Your task to perform on an android device: Check the weather Image 0: 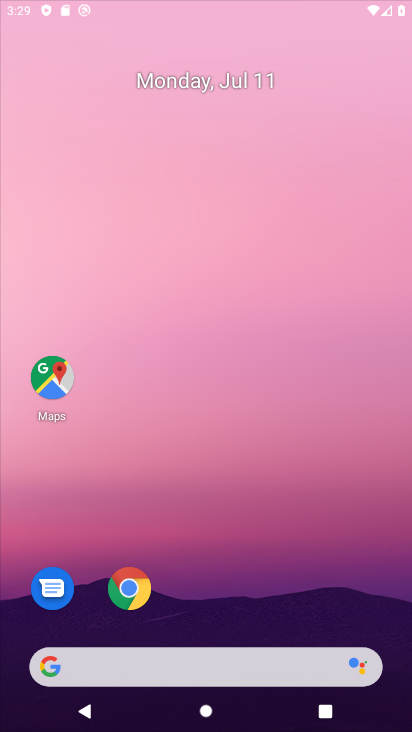
Step 0: press home button
Your task to perform on an android device: Check the weather Image 1: 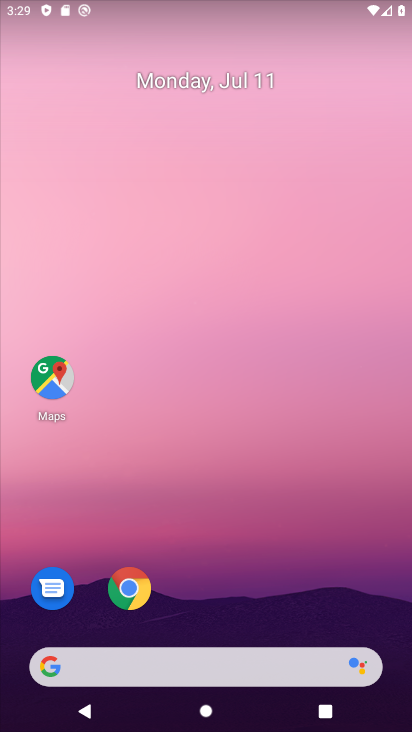
Step 1: click (48, 673)
Your task to perform on an android device: Check the weather Image 2: 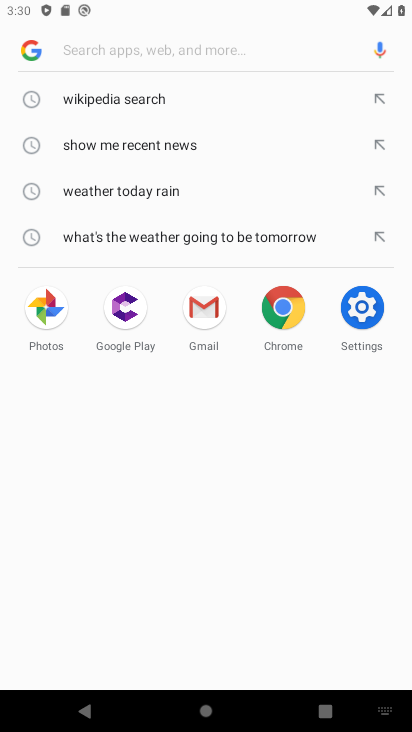
Step 2: type "weather"
Your task to perform on an android device: Check the weather Image 3: 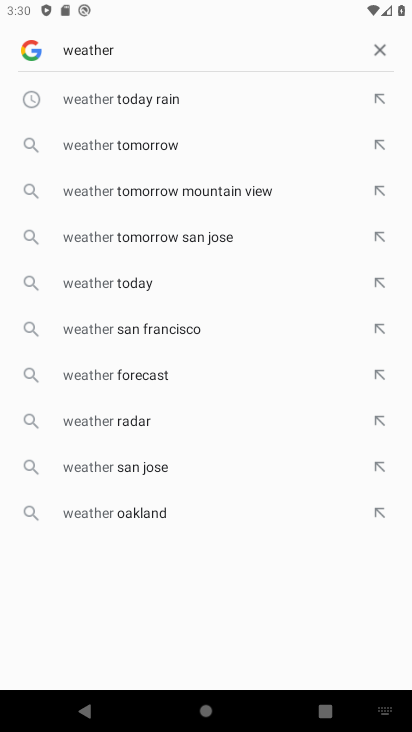
Step 3: click (114, 285)
Your task to perform on an android device: Check the weather Image 4: 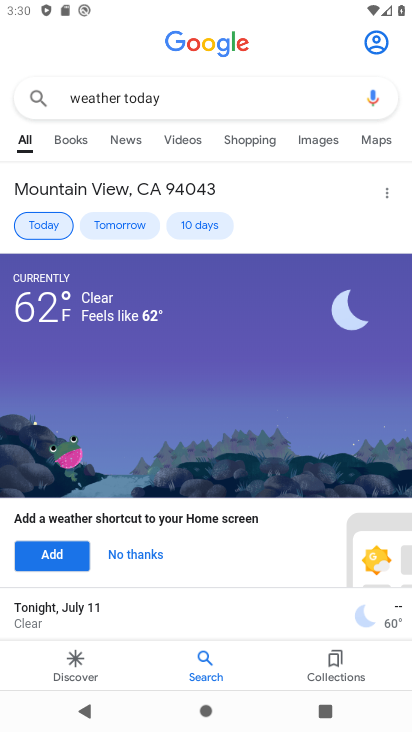
Step 4: task complete